Your task to perform on an android device: Open Google Chrome Image 0: 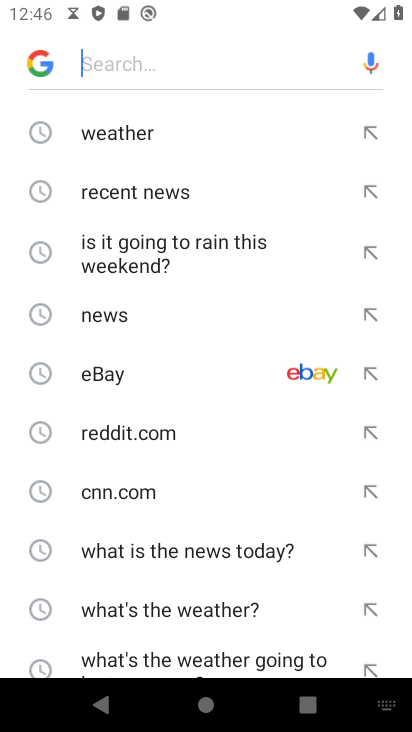
Step 0: press home button
Your task to perform on an android device: Open Google Chrome Image 1: 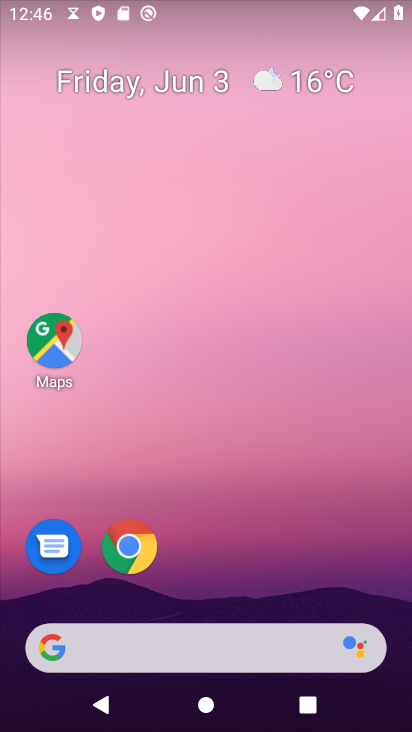
Step 1: click (127, 539)
Your task to perform on an android device: Open Google Chrome Image 2: 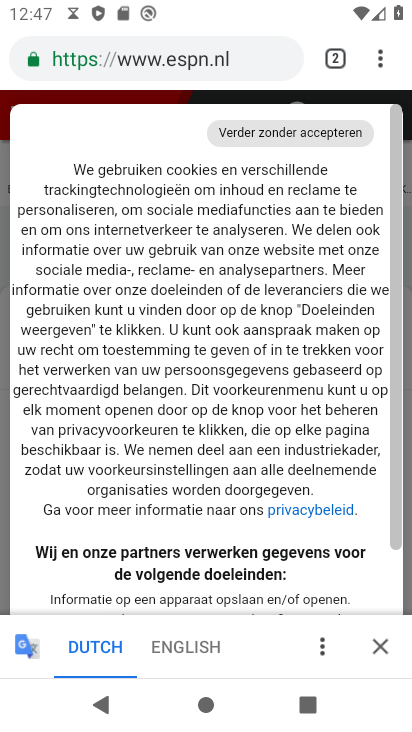
Step 2: task complete